Your task to perform on an android device: uninstall "Google Find My Device" Image 0: 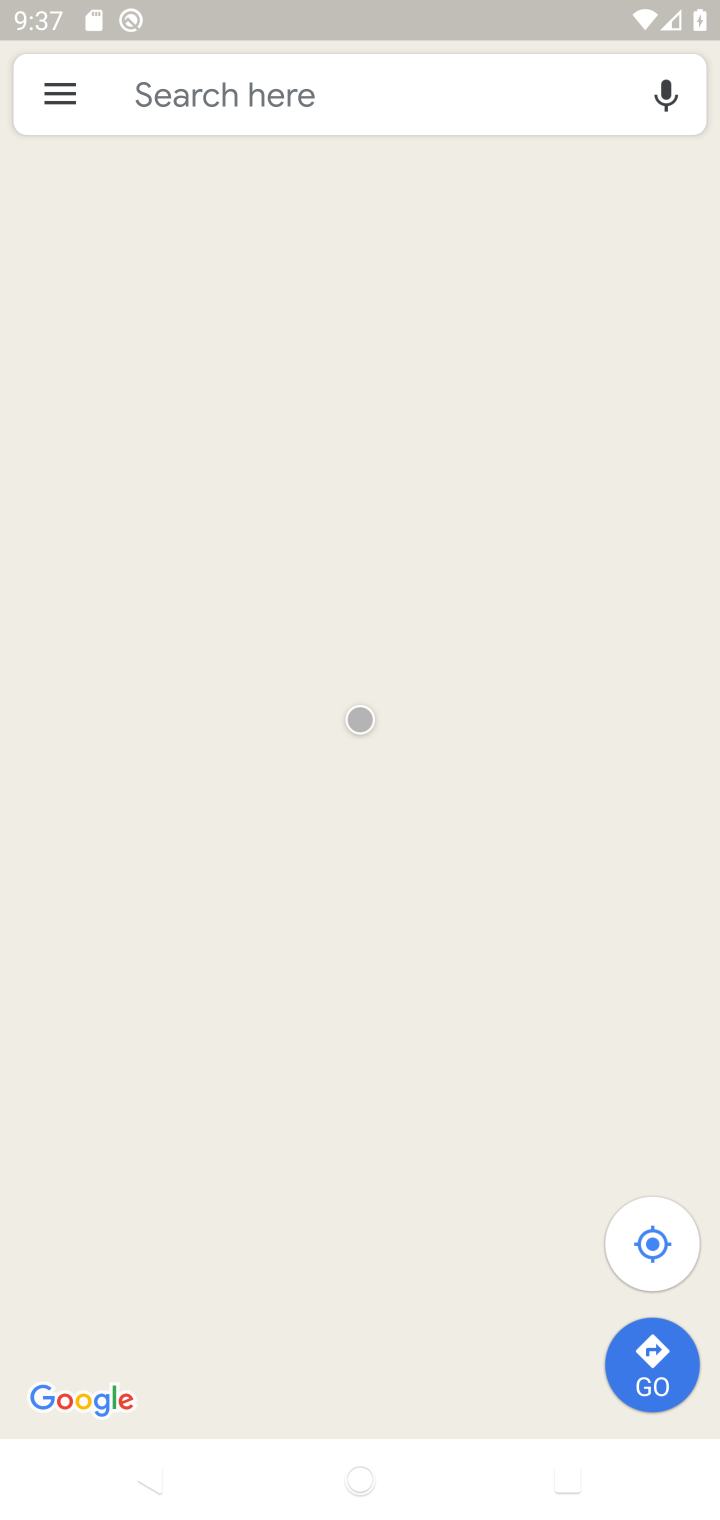
Step 0: press home button
Your task to perform on an android device: uninstall "Google Find My Device" Image 1: 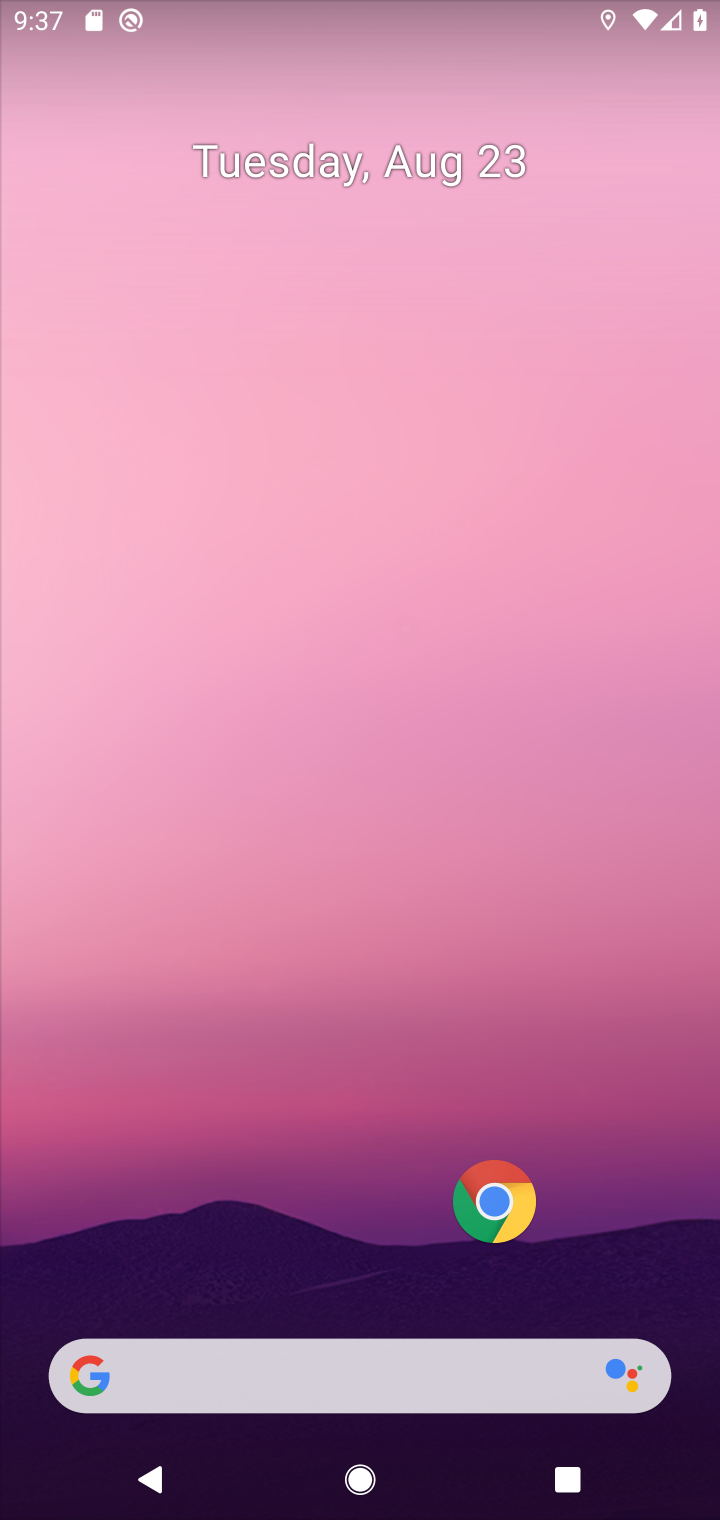
Step 1: drag from (231, 1354) to (348, 416)
Your task to perform on an android device: uninstall "Google Find My Device" Image 2: 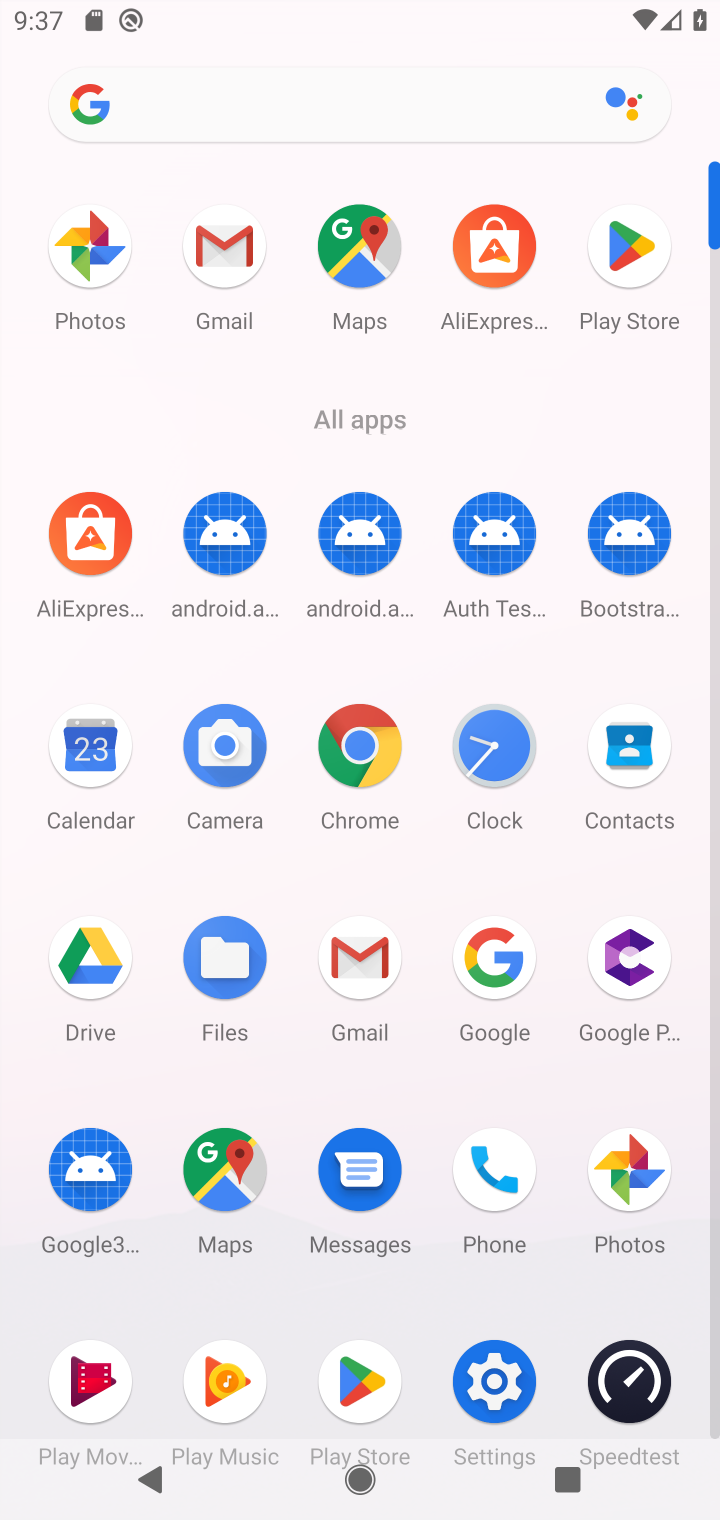
Step 2: click (338, 1345)
Your task to perform on an android device: uninstall "Google Find My Device" Image 3: 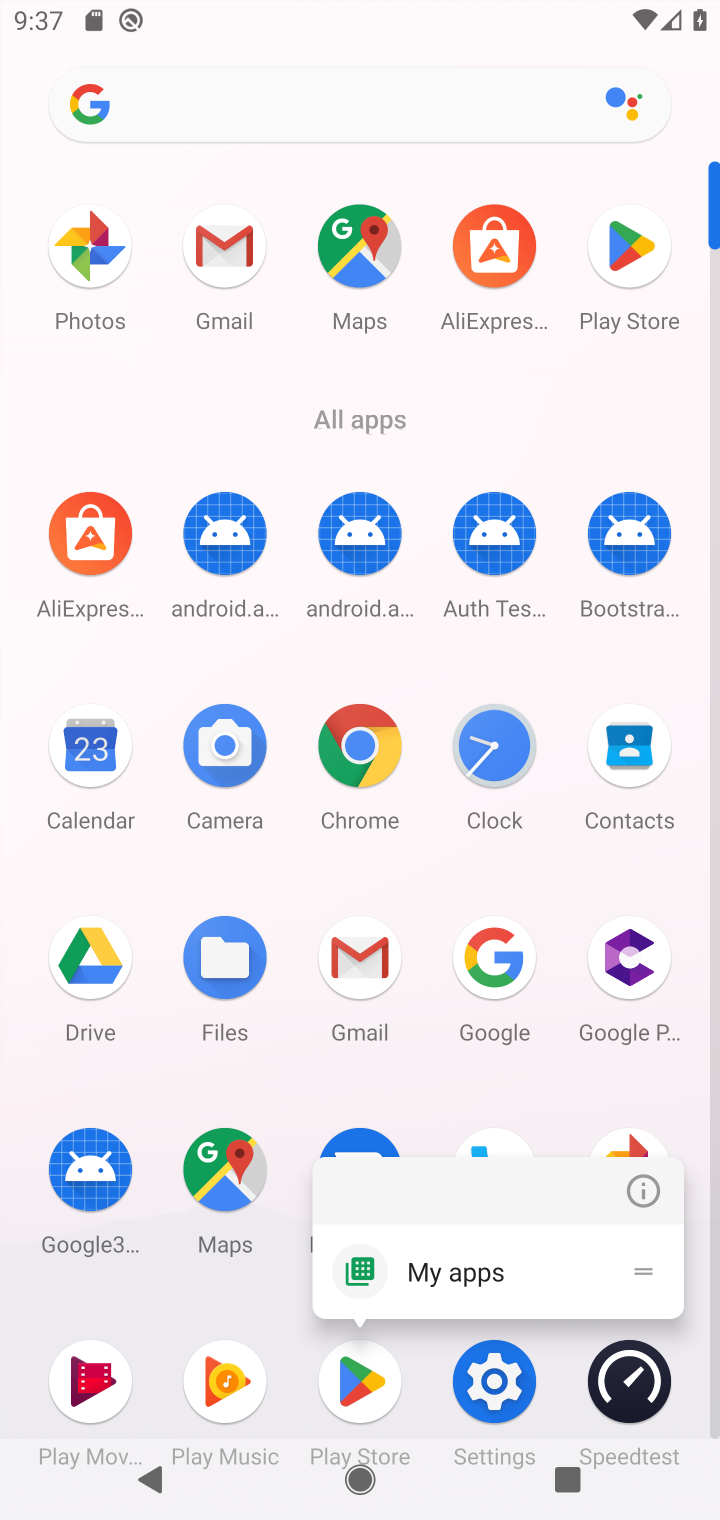
Step 3: click (367, 1383)
Your task to perform on an android device: uninstall "Google Find My Device" Image 4: 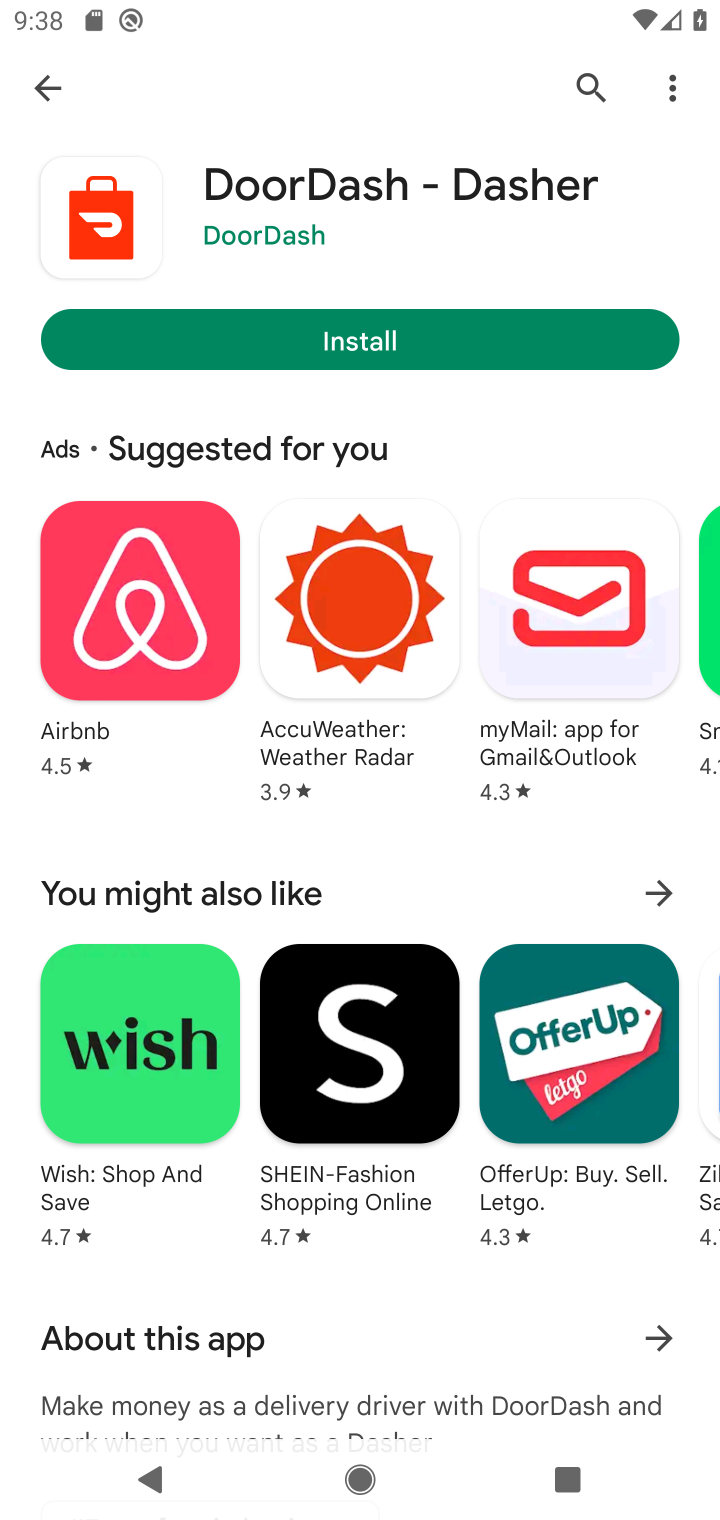
Step 4: click (50, 83)
Your task to perform on an android device: uninstall "Google Find My Device" Image 5: 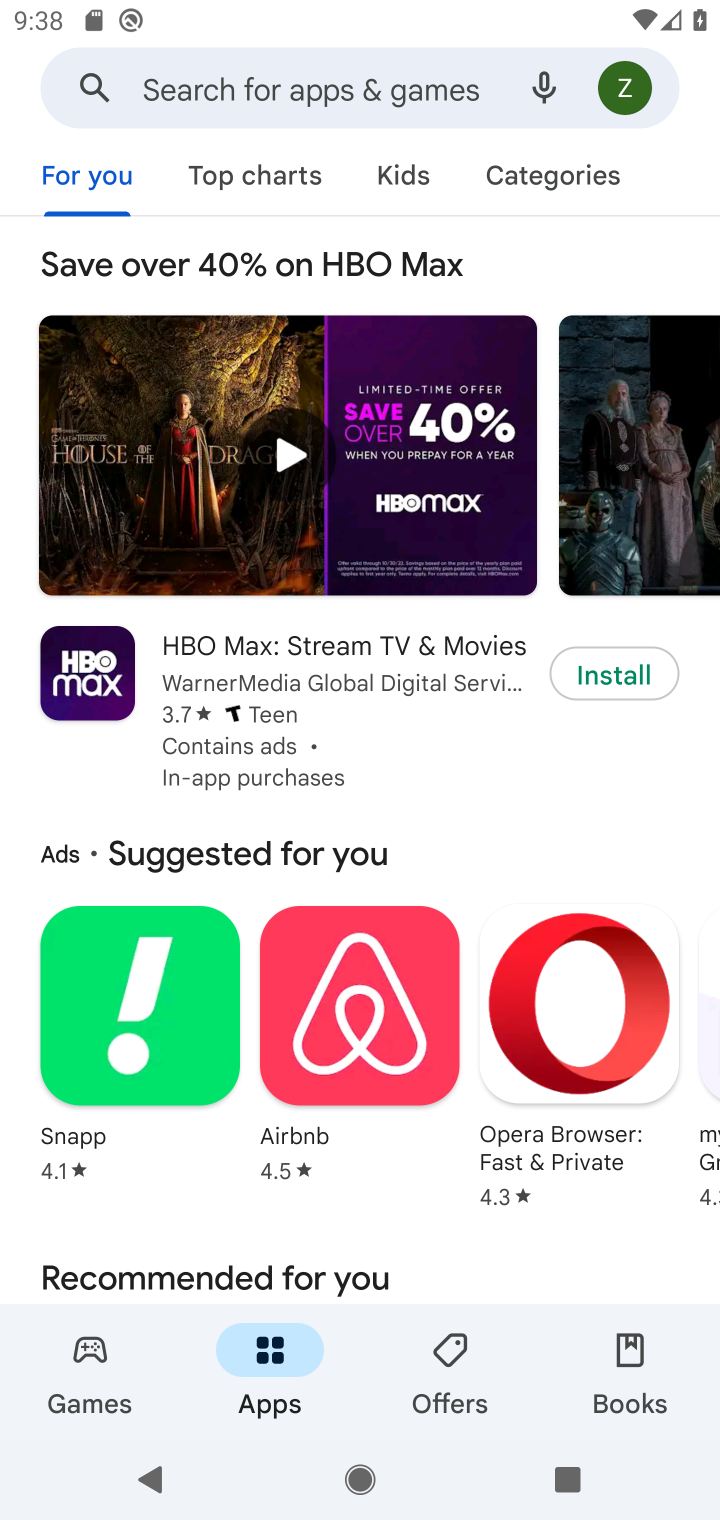
Step 5: click (202, 61)
Your task to perform on an android device: uninstall "Google Find My Device" Image 6: 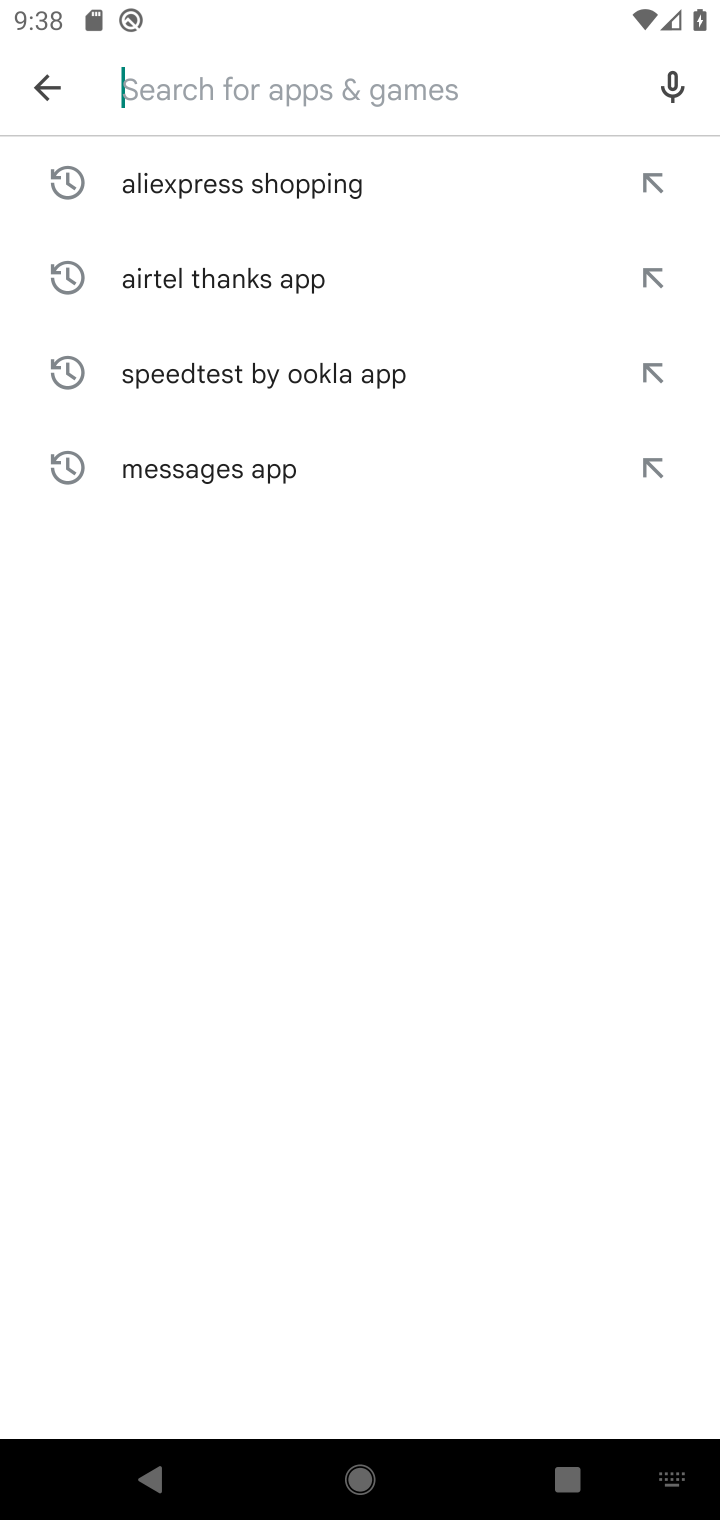
Step 6: type "Google Find My Device "
Your task to perform on an android device: uninstall "Google Find My Device" Image 7: 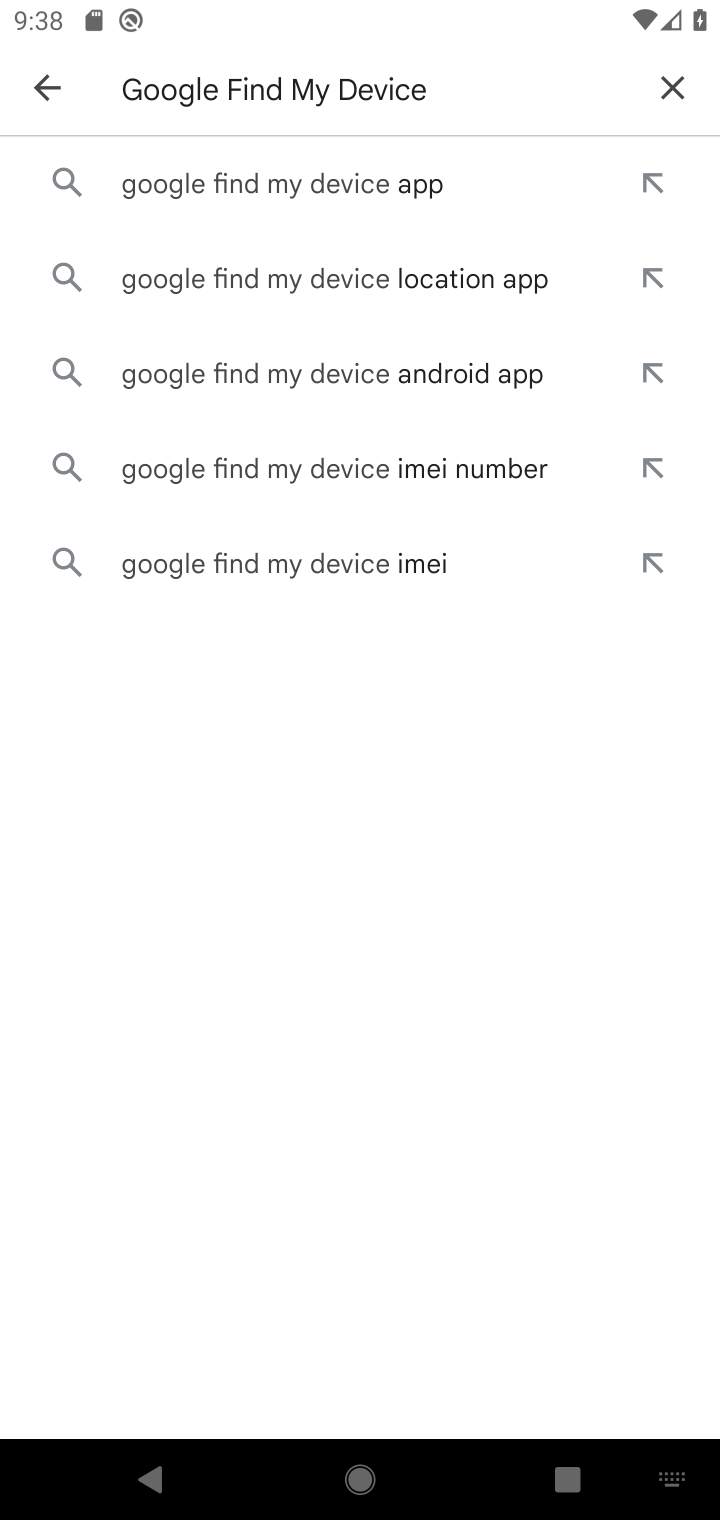
Step 7: click (304, 183)
Your task to perform on an android device: uninstall "Google Find My Device" Image 8: 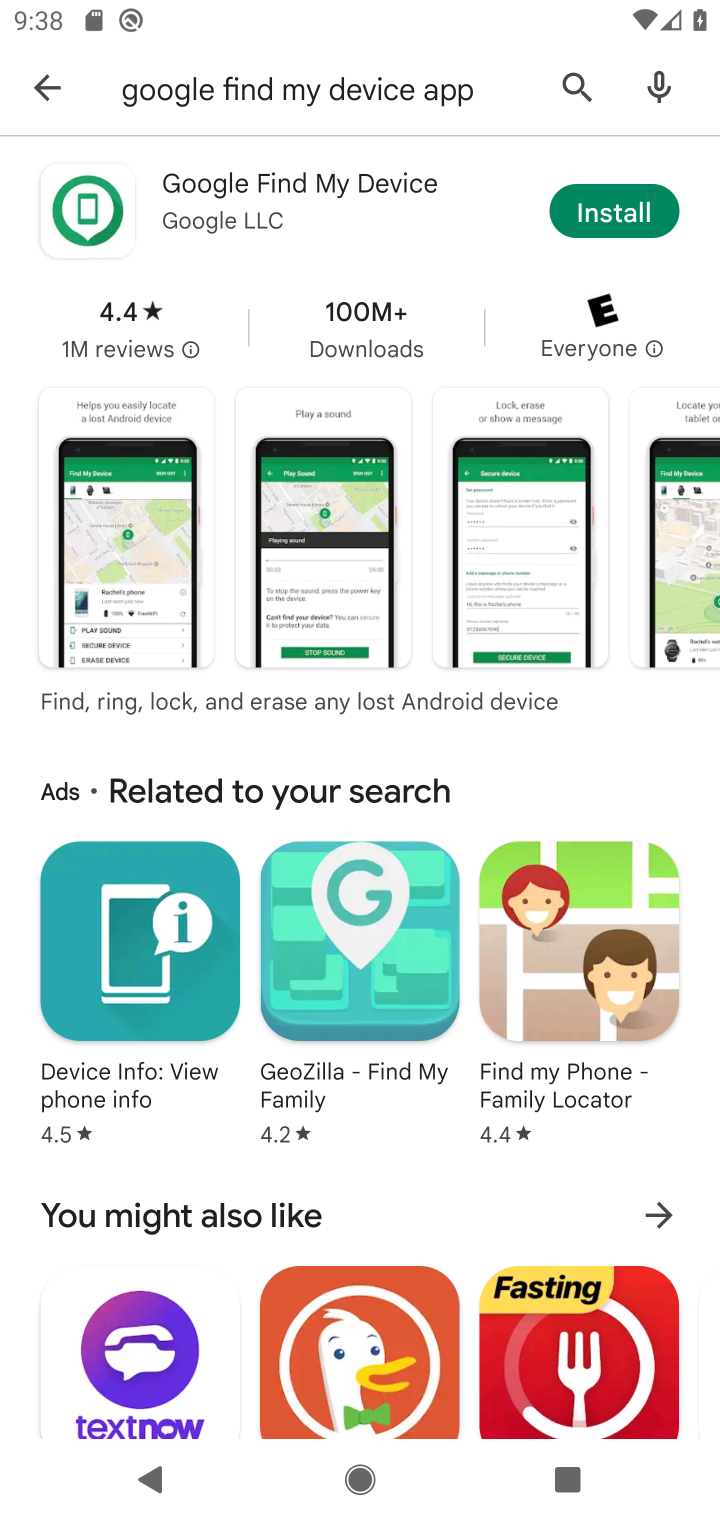
Step 8: click (337, 203)
Your task to perform on an android device: uninstall "Google Find My Device" Image 9: 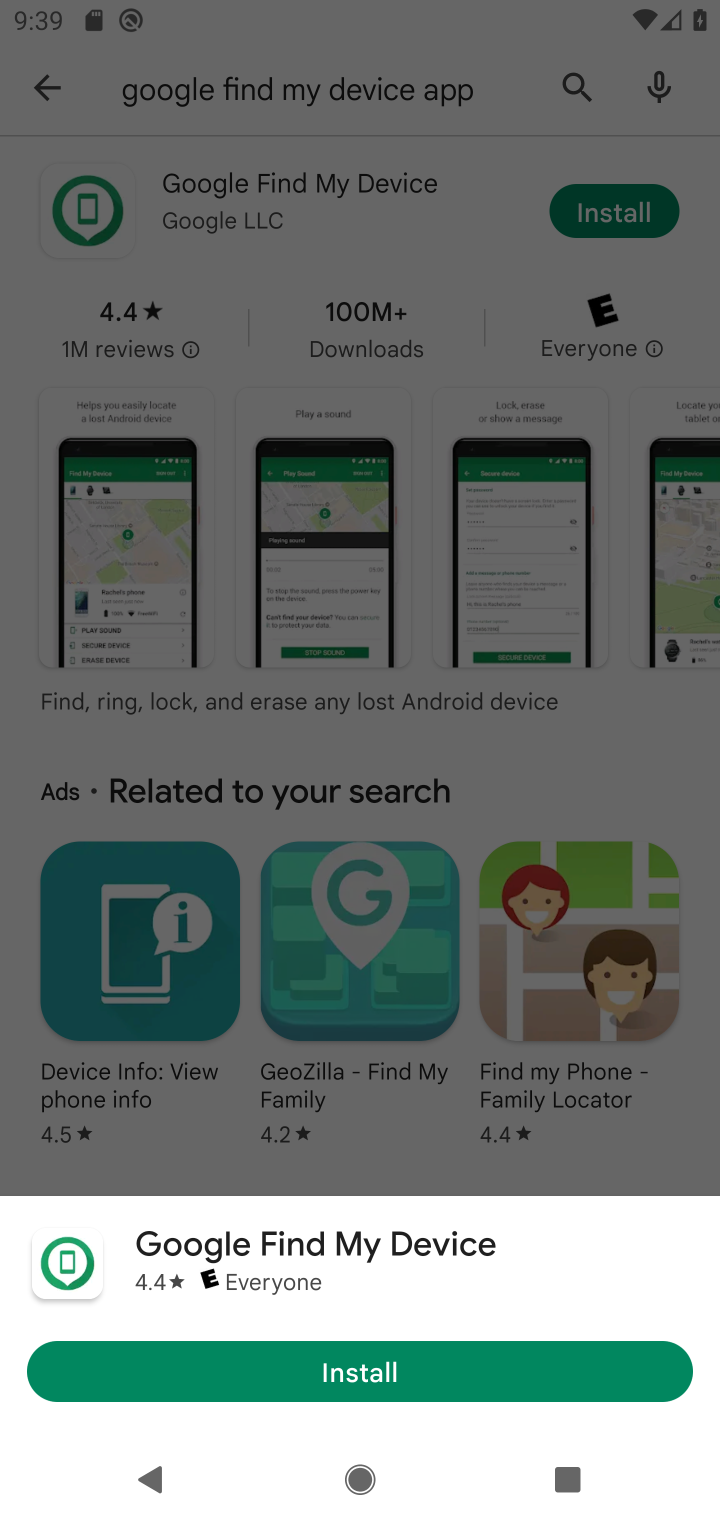
Step 9: task complete